Your task to perform on an android device: Go to Yahoo.com Image 0: 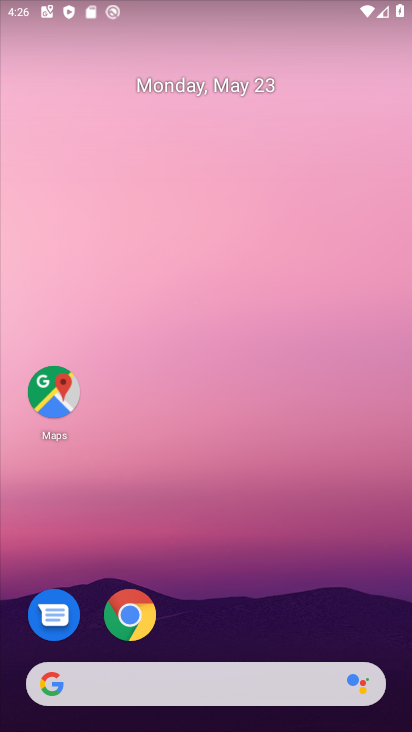
Step 0: click (124, 604)
Your task to perform on an android device: Go to Yahoo.com Image 1: 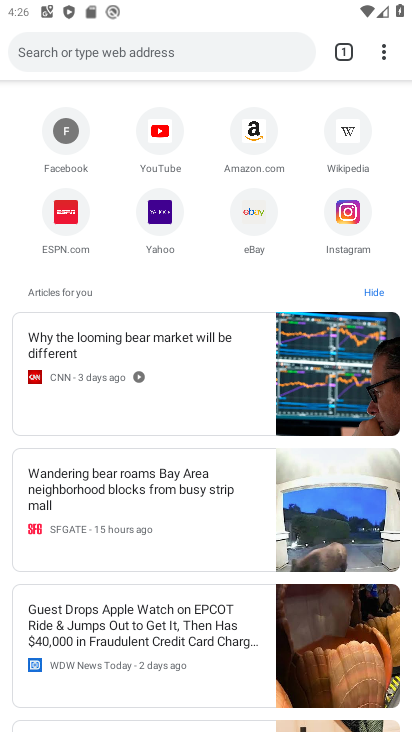
Step 1: click (156, 215)
Your task to perform on an android device: Go to Yahoo.com Image 2: 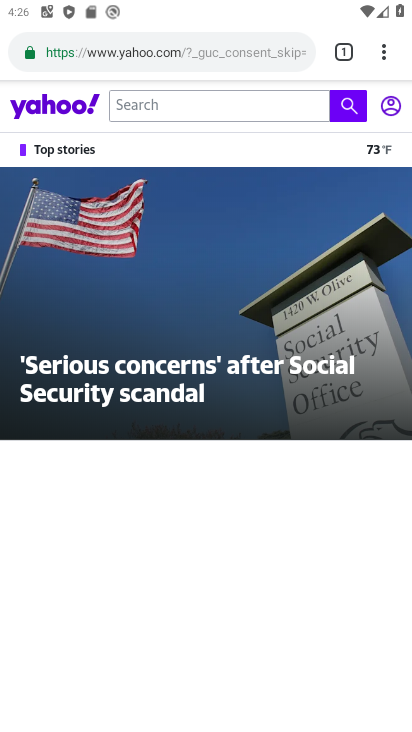
Step 2: task complete